Your task to perform on an android device: see sites visited before in the chrome app Image 0: 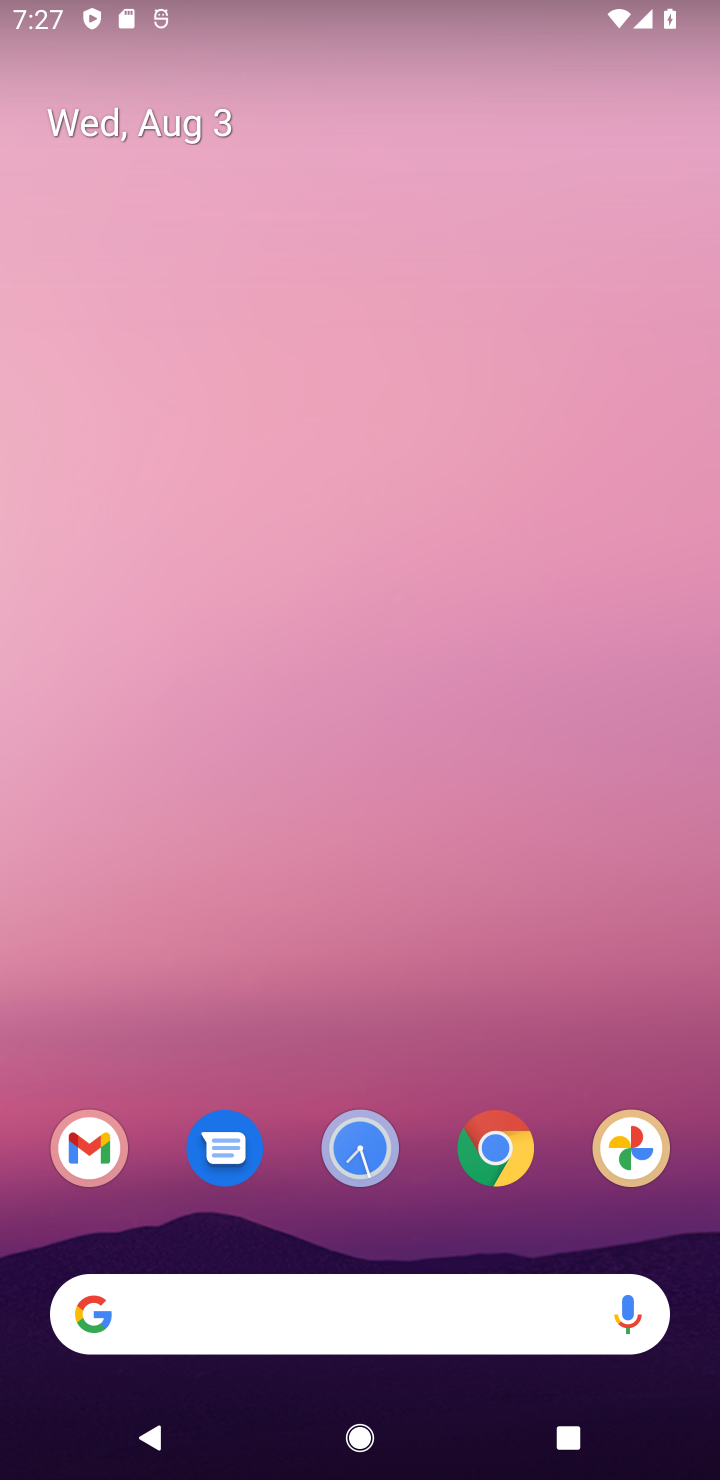
Step 0: press home button
Your task to perform on an android device: see sites visited before in the chrome app Image 1: 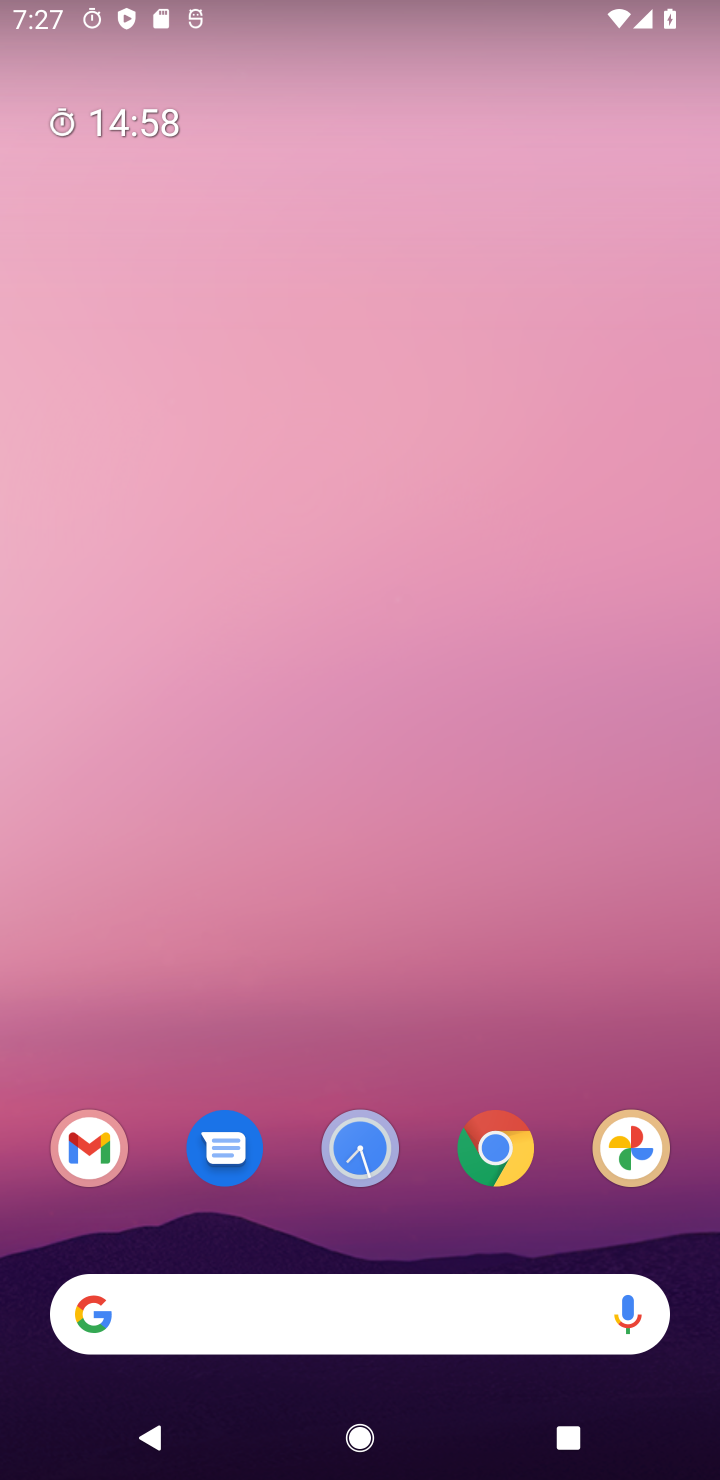
Step 1: click (489, 1191)
Your task to perform on an android device: see sites visited before in the chrome app Image 2: 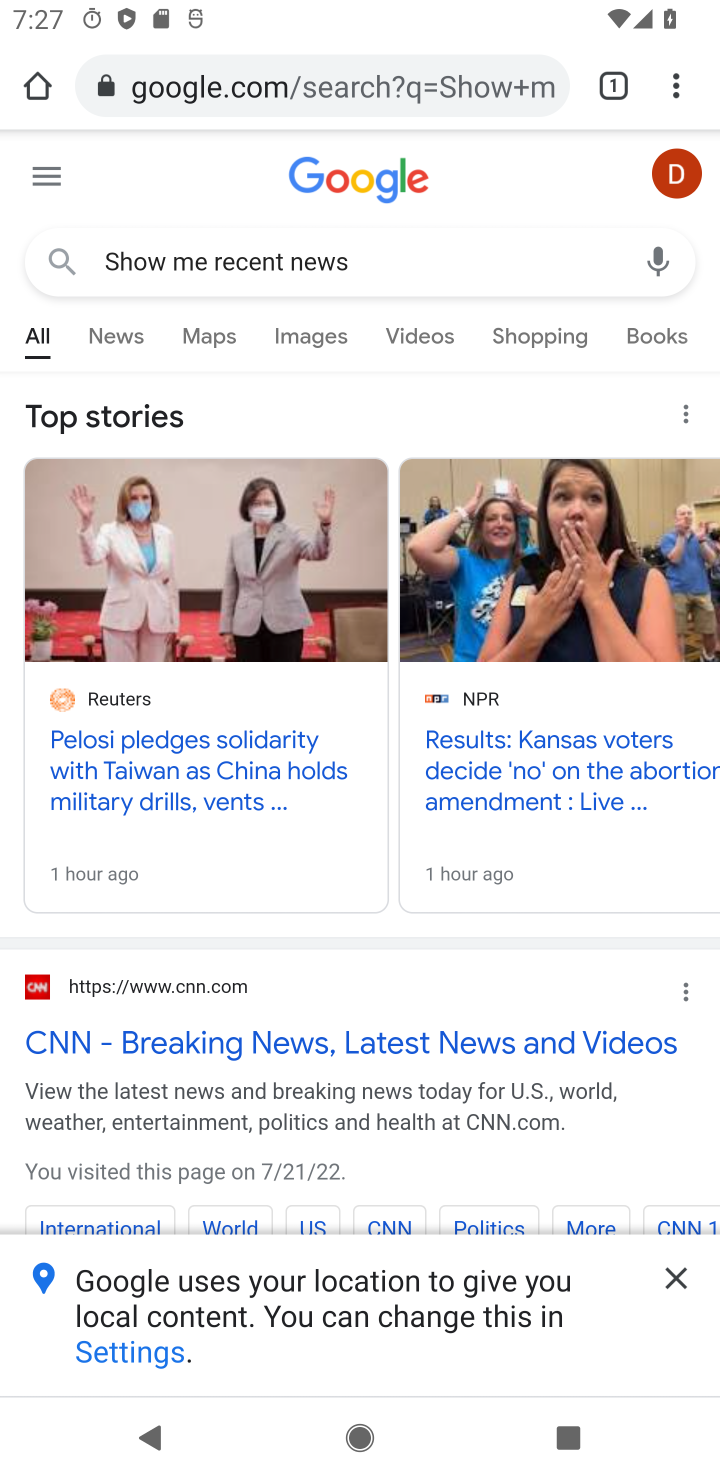
Step 2: task complete